Your task to perform on an android device: Go to accessibility settings Image 0: 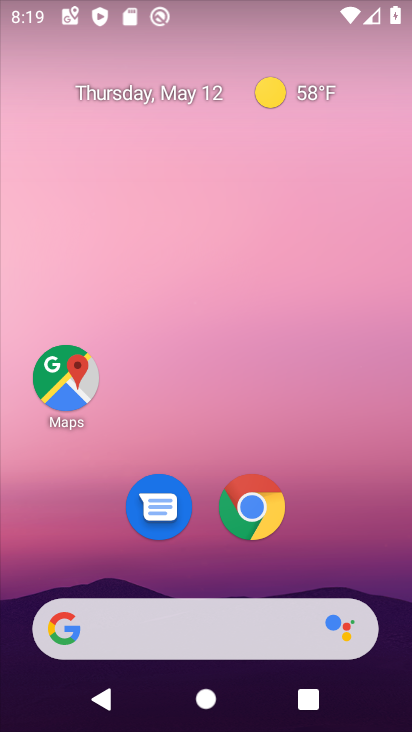
Step 0: drag from (196, 573) to (219, 185)
Your task to perform on an android device: Go to accessibility settings Image 1: 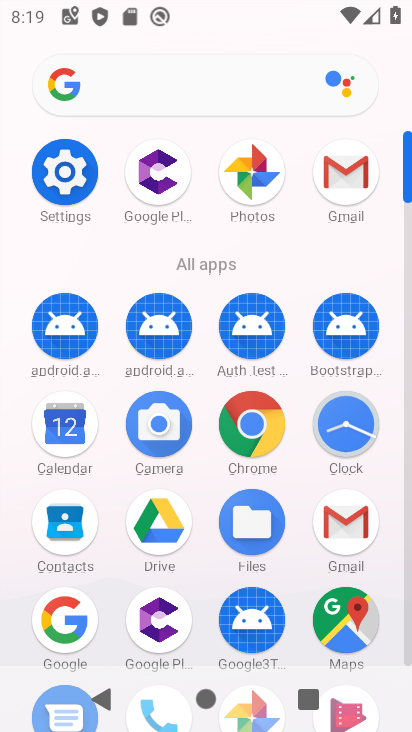
Step 1: click (36, 181)
Your task to perform on an android device: Go to accessibility settings Image 2: 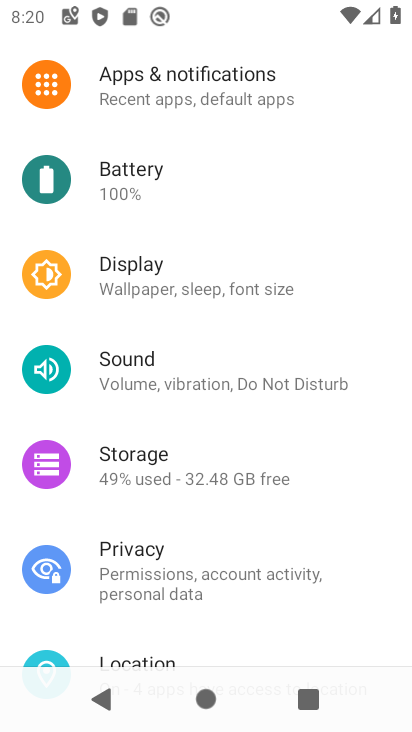
Step 2: drag from (203, 641) to (232, 302)
Your task to perform on an android device: Go to accessibility settings Image 3: 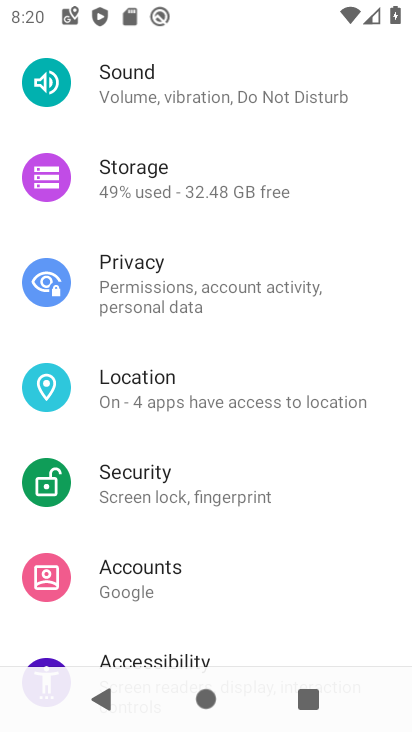
Step 3: drag from (247, 576) to (228, 357)
Your task to perform on an android device: Go to accessibility settings Image 4: 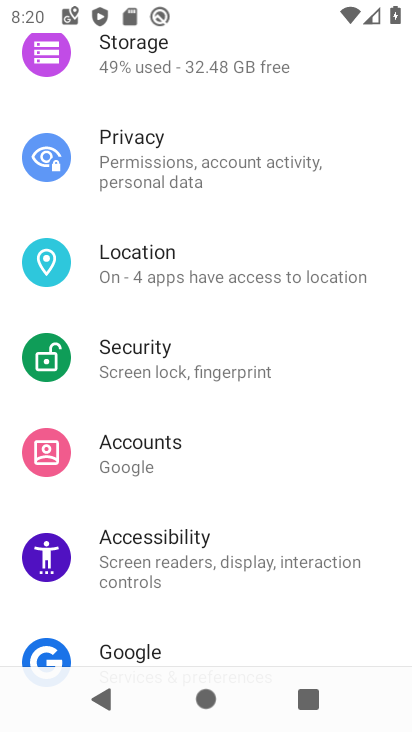
Step 4: drag from (215, 490) to (266, 240)
Your task to perform on an android device: Go to accessibility settings Image 5: 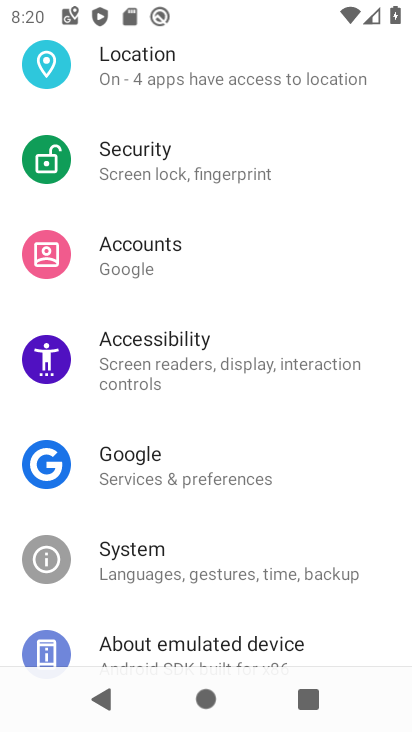
Step 5: drag from (224, 568) to (224, 400)
Your task to perform on an android device: Go to accessibility settings Image 6: 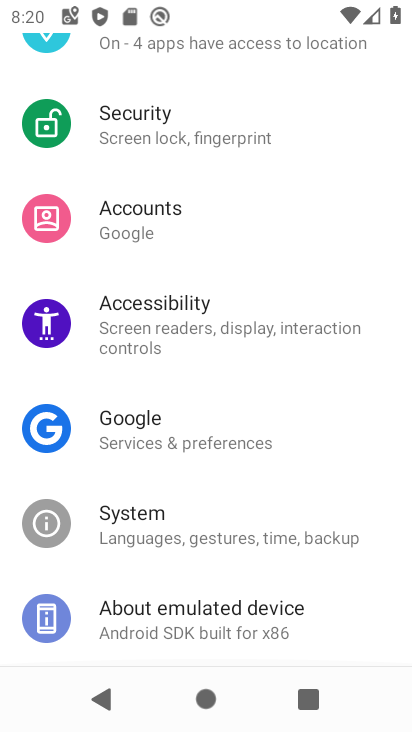
Step 6: click (180, 325)
Your task to perform on an android device: Go to accessibility settings Image 7: 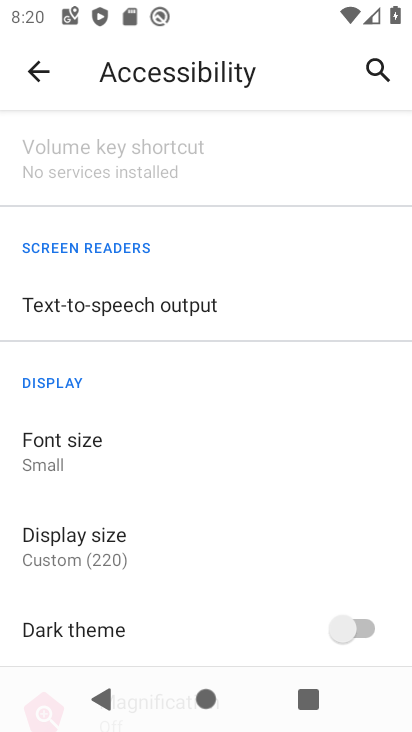
Step 7: task complete